Your task to perform on an android device: open chrome and create a bookmark for the current page Image 0: 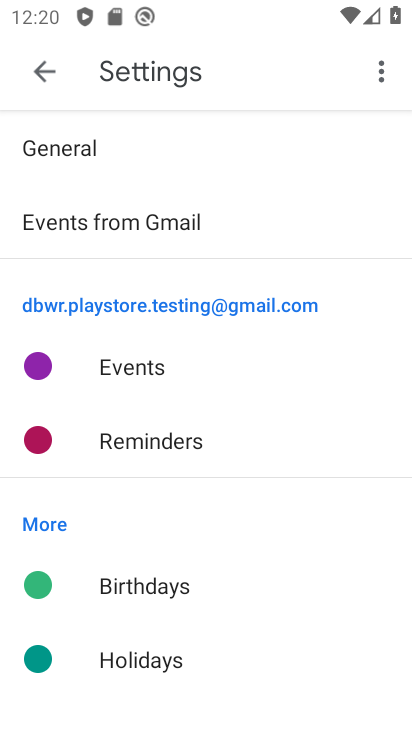
Step 0: press home button
Your task to perform on an android device: open chrome and create a bookmark for the current page Image 1: 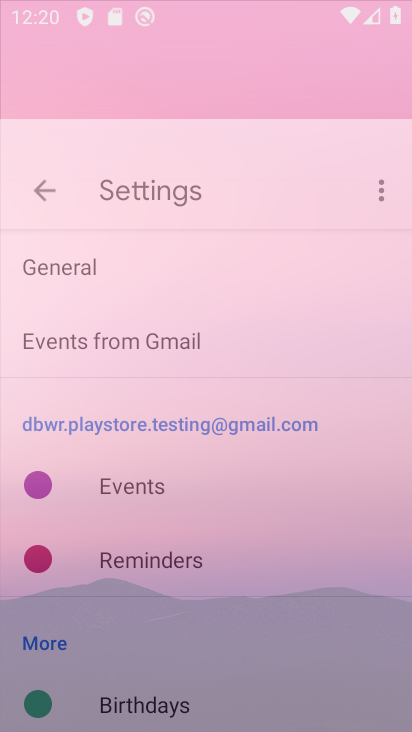
Step 1: press home button
Your task to perform on an android device: open chrome and create a bookmark for the current page Image 2: 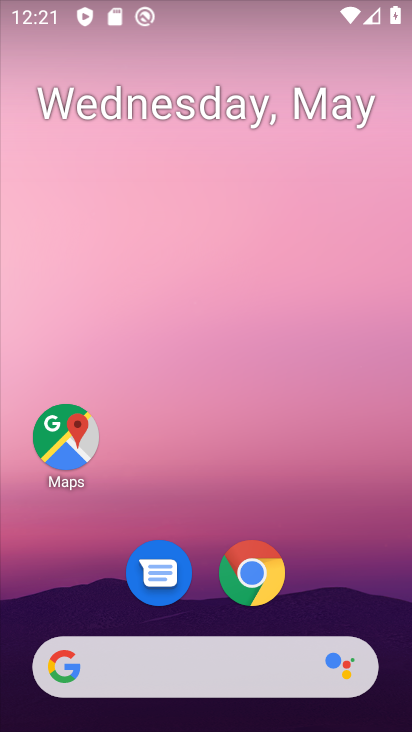
Step 2: click (234, 599)
Your task to perform on an android device: open chrome and create a bookmark for the current page Image 3: 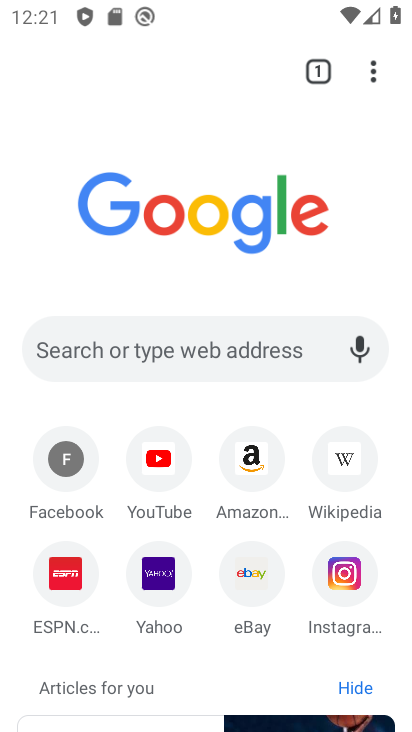
Step 3: task complete